Your task to perform on an android device: see sites visited before in the chrome app Image 0: 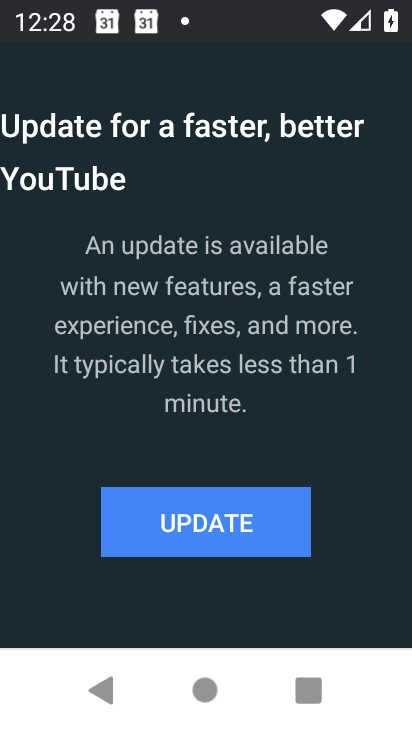
Step 0: press home button
Your task to perform on an android device: see sites visited before in the chrome app Image 1: 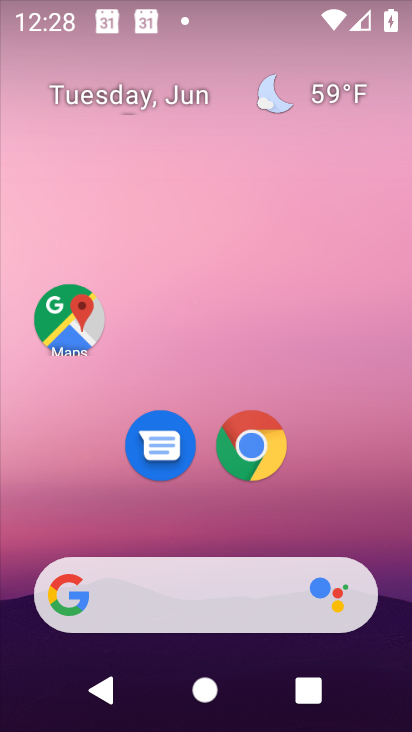
Step 1: click (251, 444)
Your task to perform on an android device: see sites visited before in the chrome app Image 2: 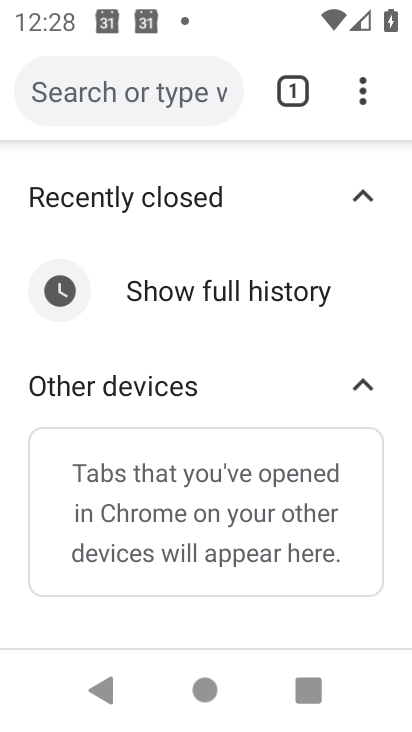
Step 2: click (373, 85)
Your task to perform on an android device: see sites visited before in the chrome app Image 3: 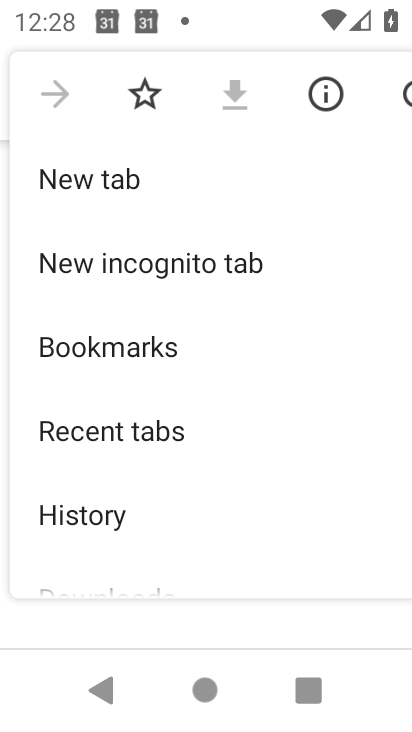
Step 3: drag from (98, 524) to (103, 21)
Your task to perform on an android device: see sites visited before in the chrome app Image 4: 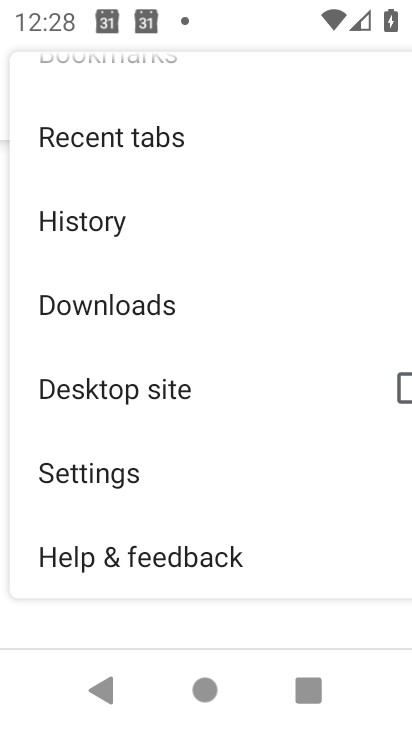
Step 4: click (97, 450)
Your task to perform on an android device: see sites visited before in the chrome app Image 5: 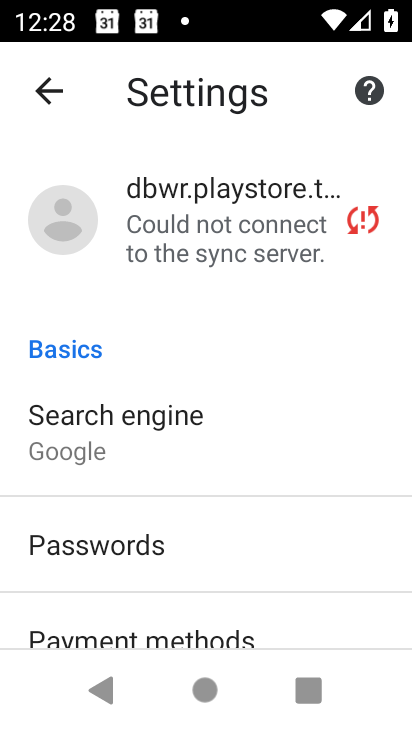
Step 5: drag from (149, 574) to (185, 43)
Your task to perform on an android device: see sites visited before in the chrome app Image 6: 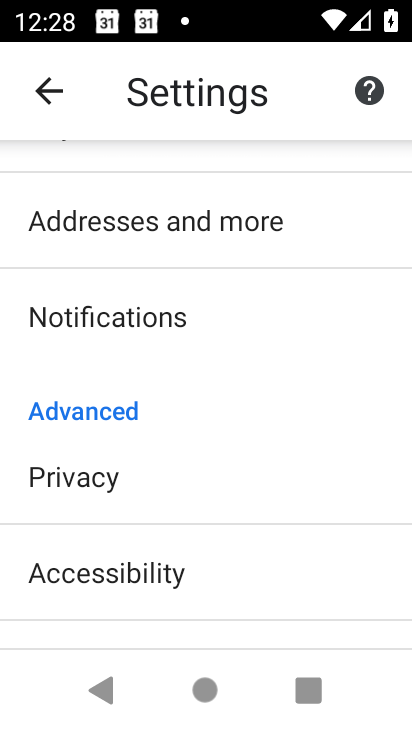
Step 6: drag from (181, 494) to (155, 241)
Your task to perform on an android device: see sites visited before in the chrome app Image 7: 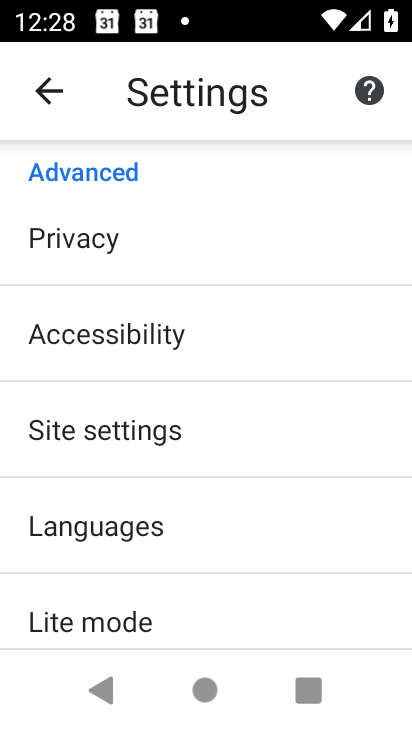
Step 7: drag from (189, 564) to (196, 141)
Your task to perform on an android device: see sites visited before in the chrome app Image 8: 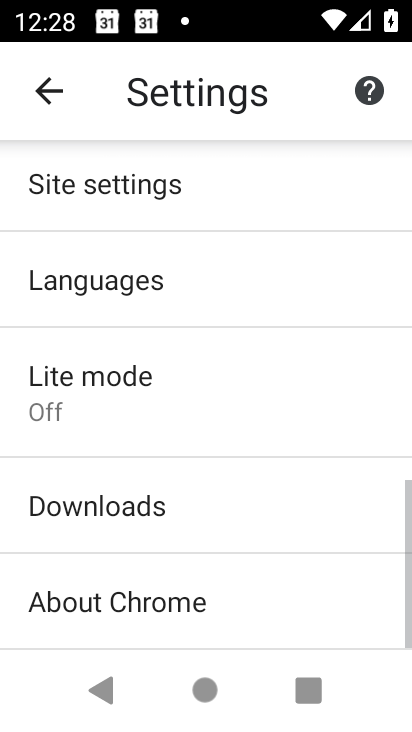
Step 8: drag from (105, 572) to (153, 169)
Your task to perform on an android device: see sites visited before in the chrome app Image 9: 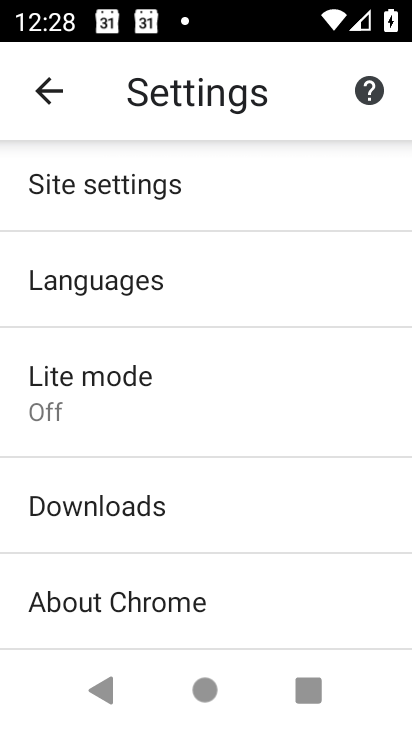
Step 9: drag from (181, 201) to (215, 597)
Your task to perform on an android device: see sites visited before in the chrome app Image 10: 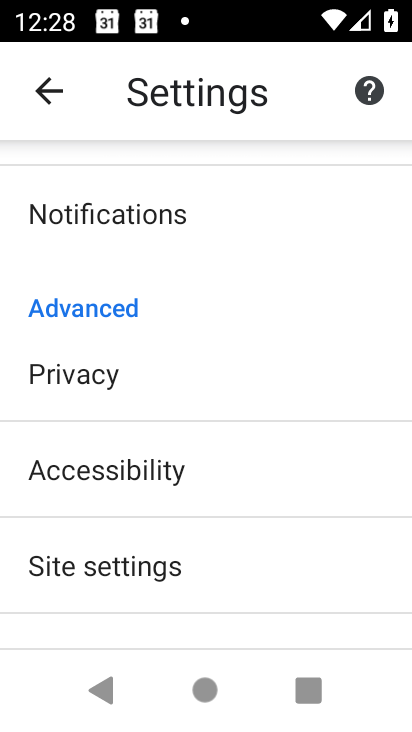
Step 10: drag from (208, 218) to (232, 588)
Your task to perform on an android device: see sites visited before in the chrome app Image 11: 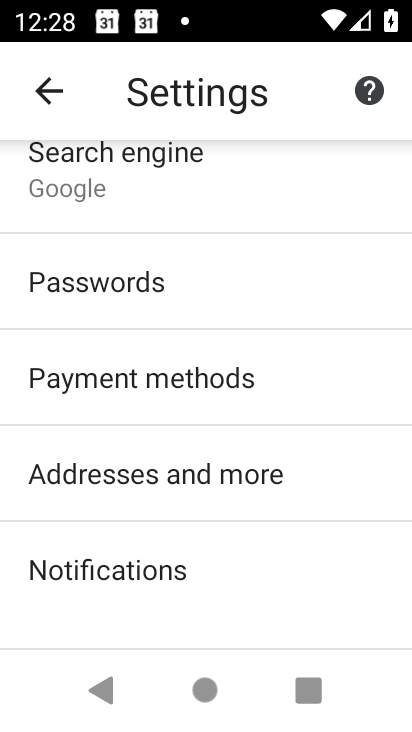
Step 11: drag from (137, 182) to (209, 578)
Your task to perform on an android device: see sites visited before in the chrome app Image 12: 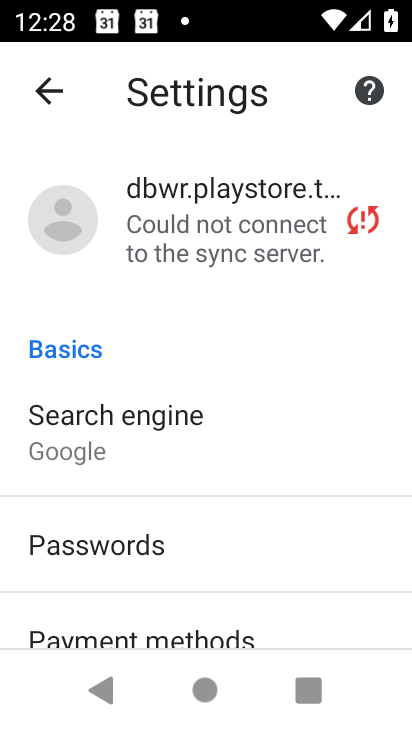
Step 12: drag from (66, 522) to (66, 82)
Your task to perform on an android device: see sites visited before in the chrome app Image 13: 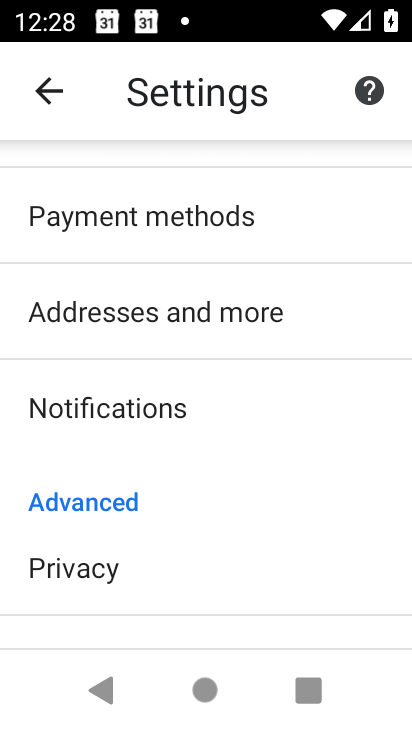
Step 13: click (44, 87)
Your task to perform on an android device: see sites visited before in the chrome app Image 14: 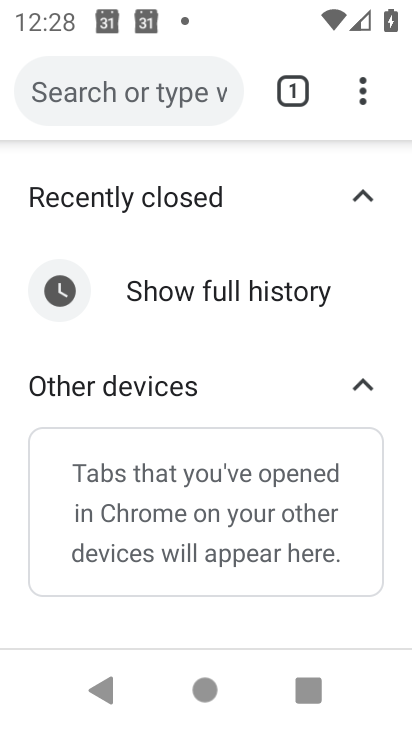
Step 14: click (355, 98)
Your task to perform on an android device: see sites visited before in the chrome app Image 15: 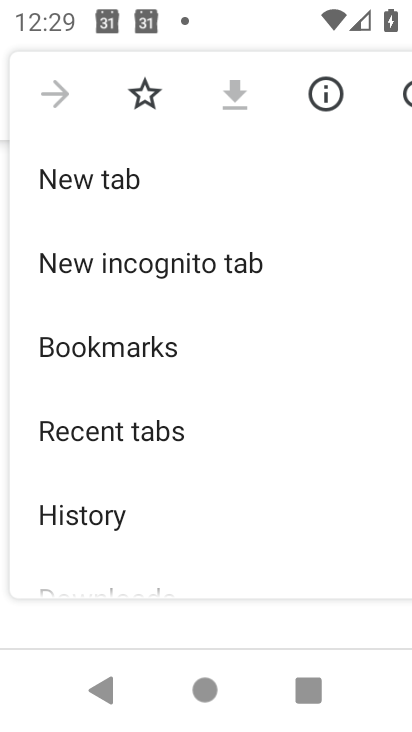
Step 15: click (142, 529)
Your task to perform on an android device: see sites visited before in the chrome app Image 16: 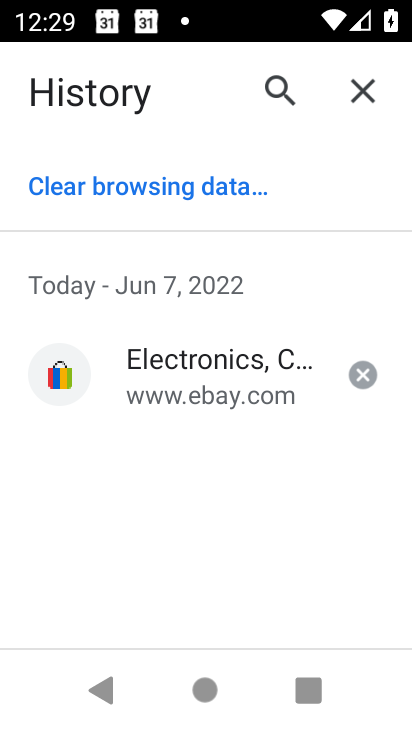
Step 16: task complete